Your task to perform on an android device: toggle javascript in the chrome app Image 0: 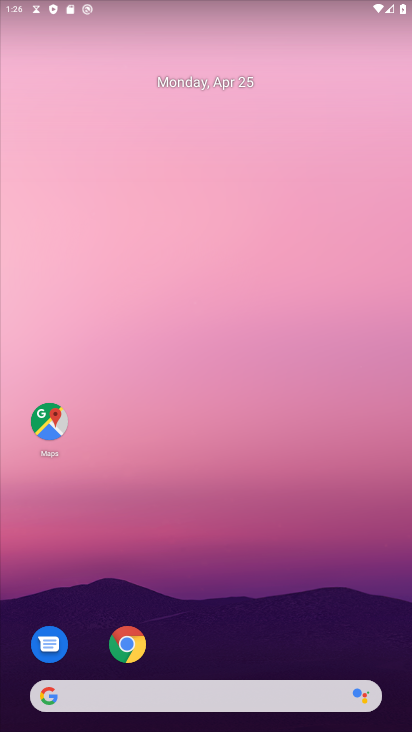
Step 0: click (128, 653)
Your task to perform on an android device: toggle javascript in the chrome app Image 1: 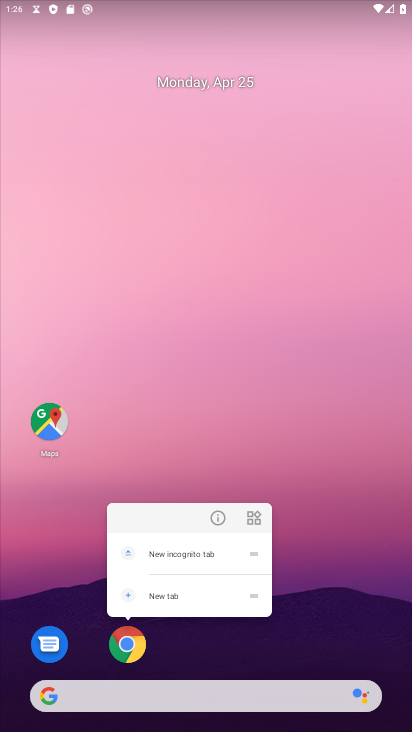
Step 1: click (125, 638)
Your task to perform on an android device: toggle javascript in the chrome app Image 2: 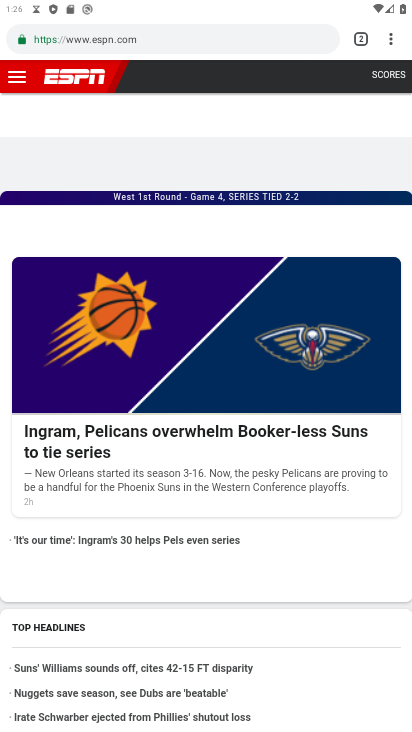
Step 2: drag from (391, 38) to (248, 518)
Your task to perform on an android device: toggle javascript in the chrome app Image 3: 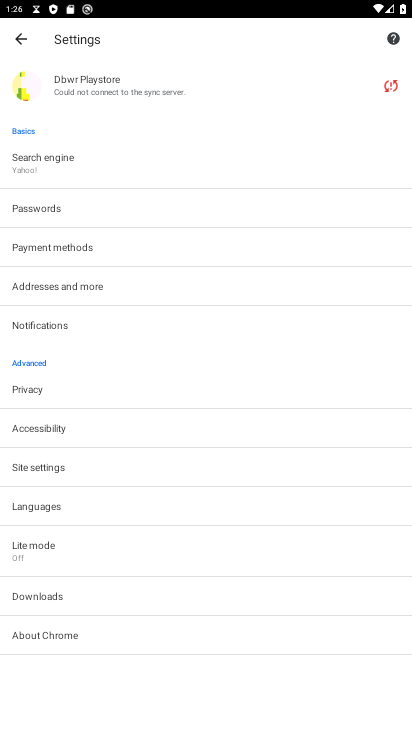
Step 3: click (58, 473)
Your task to perform on an android device: toggle javascript in the chrome app Image 4: 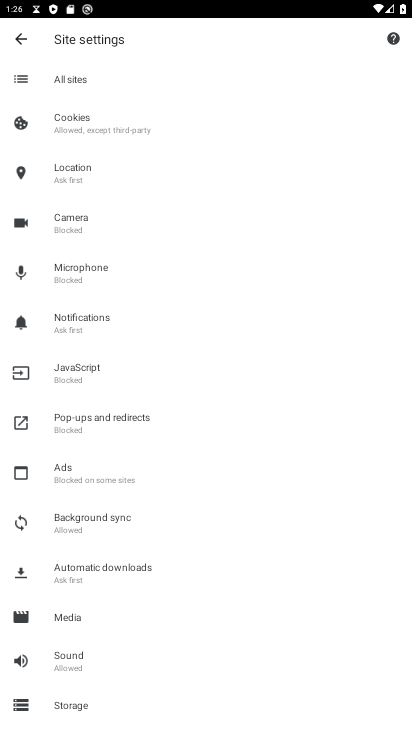
Step 4: click (79, 372)
Your task to perform on an android device: toggle javascript in the chrome app Image 5: 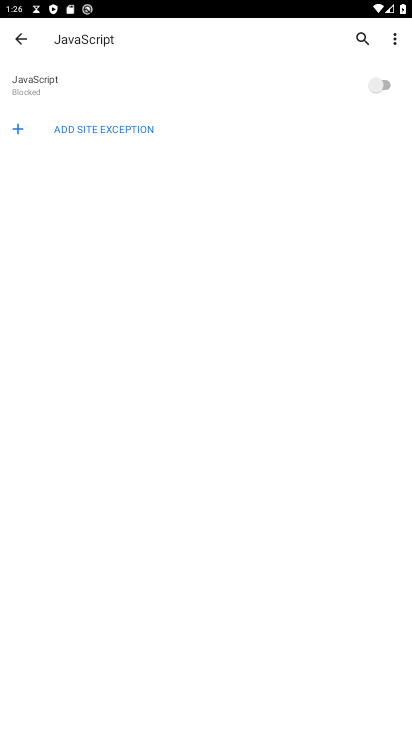
Step 5: click (375, 85)
Your task to perform on an android device: toggle javascript in the chrome app Image 6: 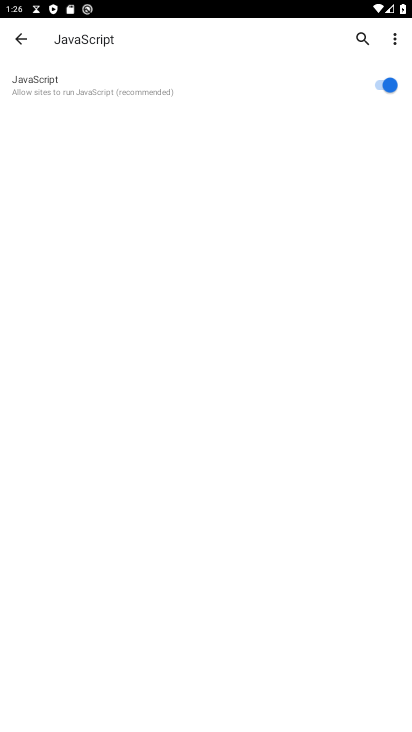
Step 6: task complete